Your task to perform on an android device: Do I have any events tomorrow? Image 0: 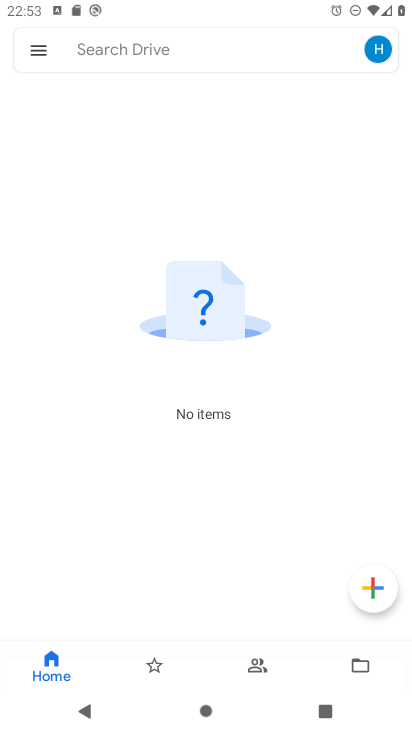
Step 0: press home button
Your task to perform on an android device: Do I have any events tomorrow? Image 1: 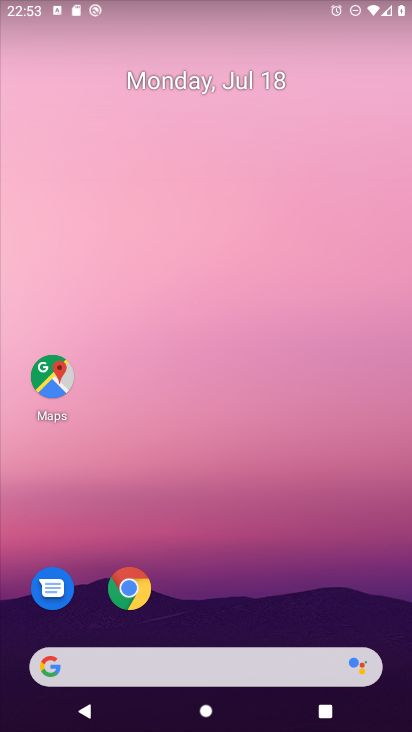
Step 1: drag from (378, 621) to (284, 120)
Your task to perform on an android device: Do I have any events tomorrow? Image 2: 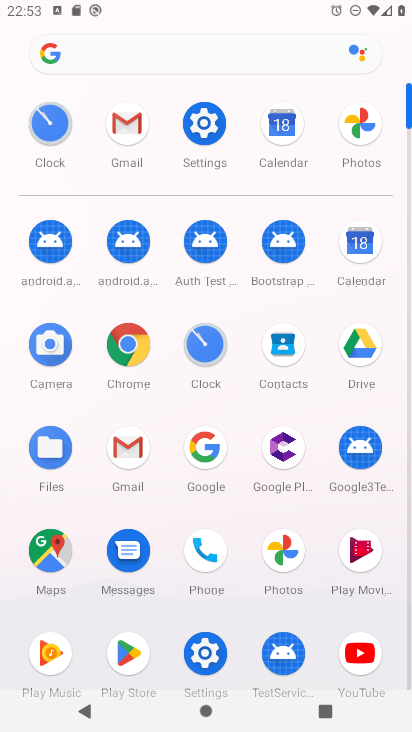
Step 2: click (359, 234)
Your task to perform on an android device: Do I have any events tomorrow? Image 3: 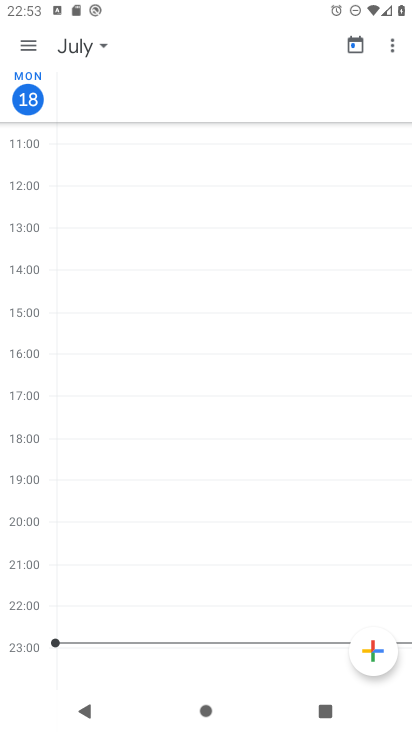
Step 3: click (28, 43)
Your task to perform on an android device: Do I have any events tomorrow? Image 4: 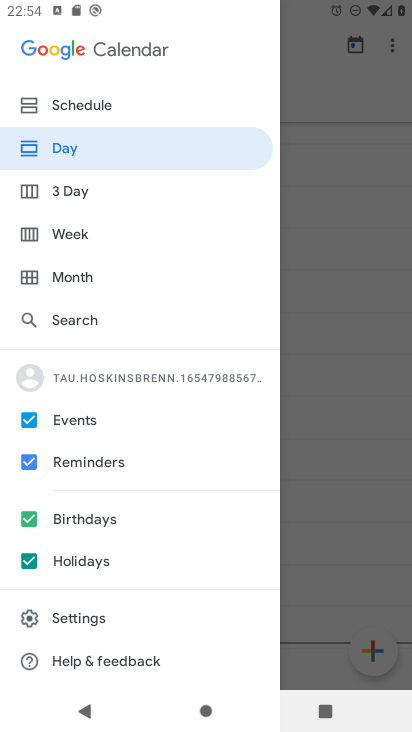
Step 4: click (341, 351)
Your task to perform on an android device: Do I have any events tomorrow? Image 5: 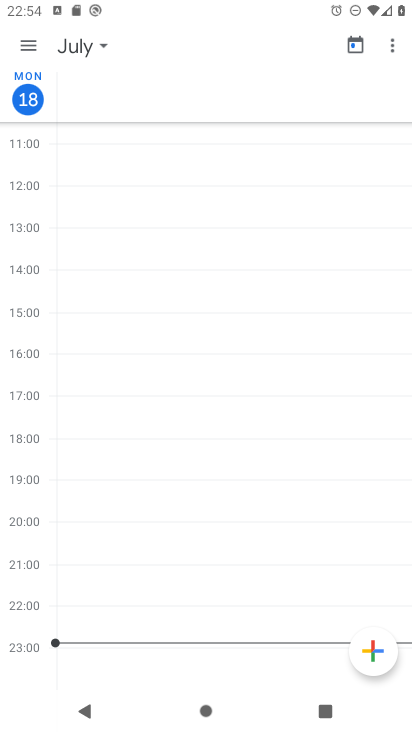
Step 5: click (104, 47)
Your task to perform on an android device: Do I have any events tomorrow? Image 6: 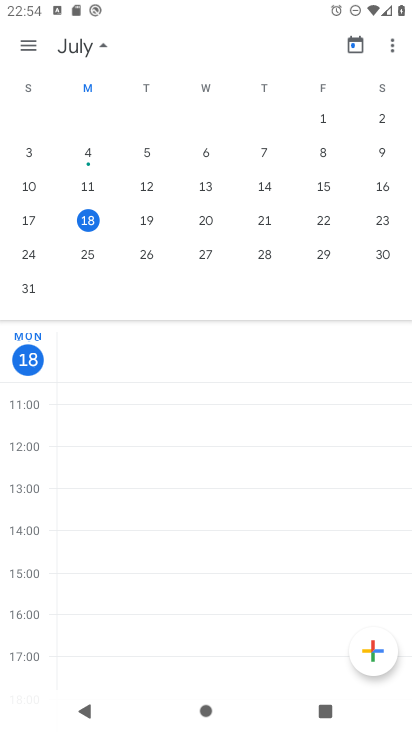
Step 6: click (147, 214)
Your task to perform on an android device: Do I have any events tomorrow? Image 7: 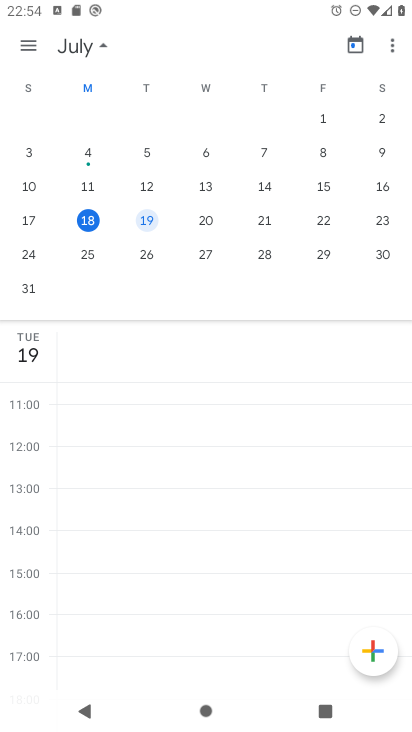
Step 7: task complete